Your task to perform on an android device: see tabs open on other devices in the chrome app Image 0: 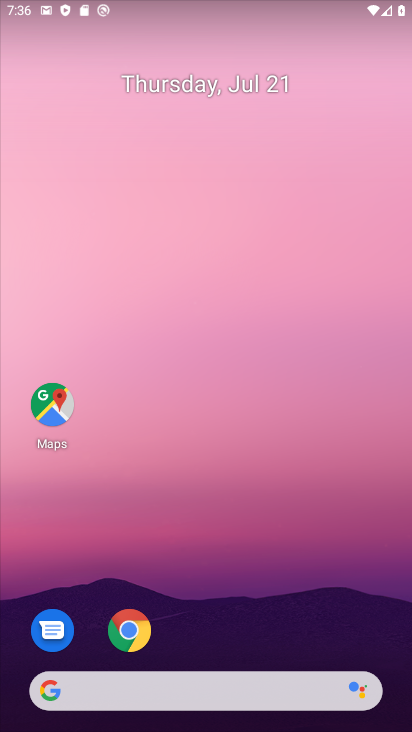
Step 0: click (120, 635)
Your task to perform on an android device: see tabs open on other devices in the chrome app Image 1: 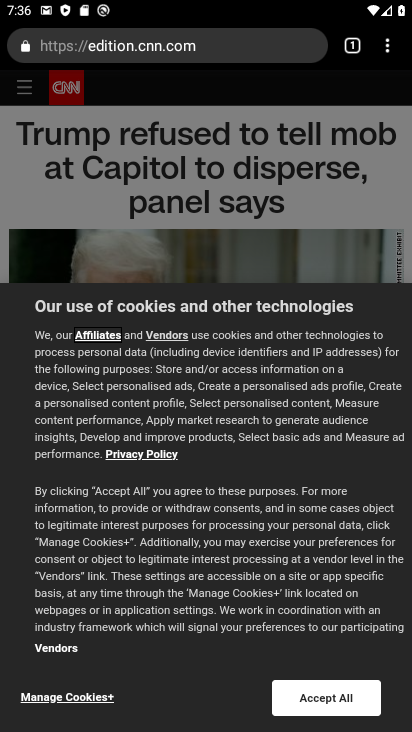
Step 1: click (391, 41)
Your task to perform on an android device: see tabs open on other devices in the chrome app Image 2: 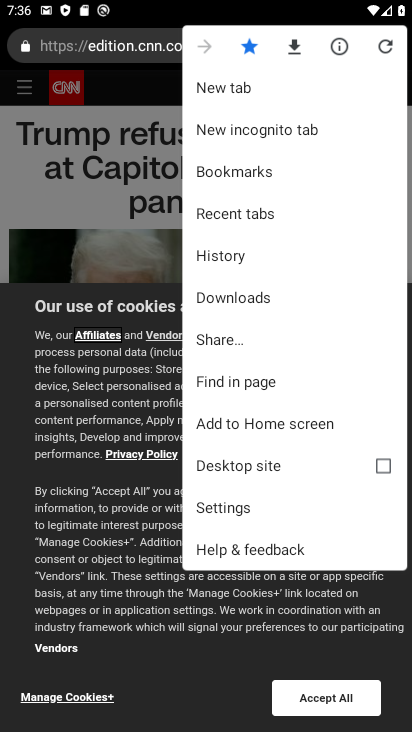
Step 2: click (329, 215)
Your task to perform on an android device: see tabs open on other devices in the chrome app Image 3: 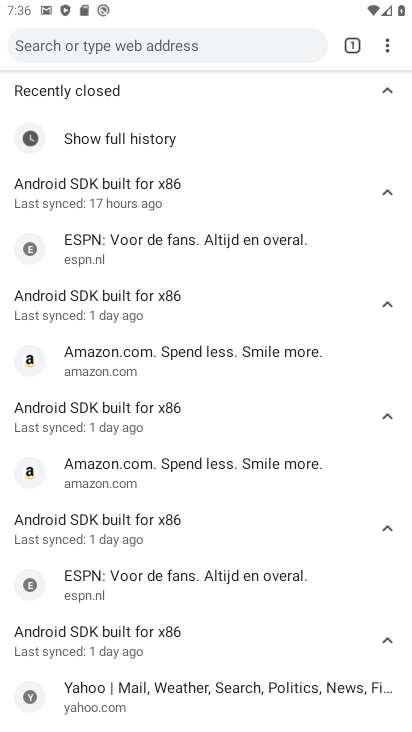
Step 3: task complete